Your task to perform on an android device: Go to Android settings Image 0: 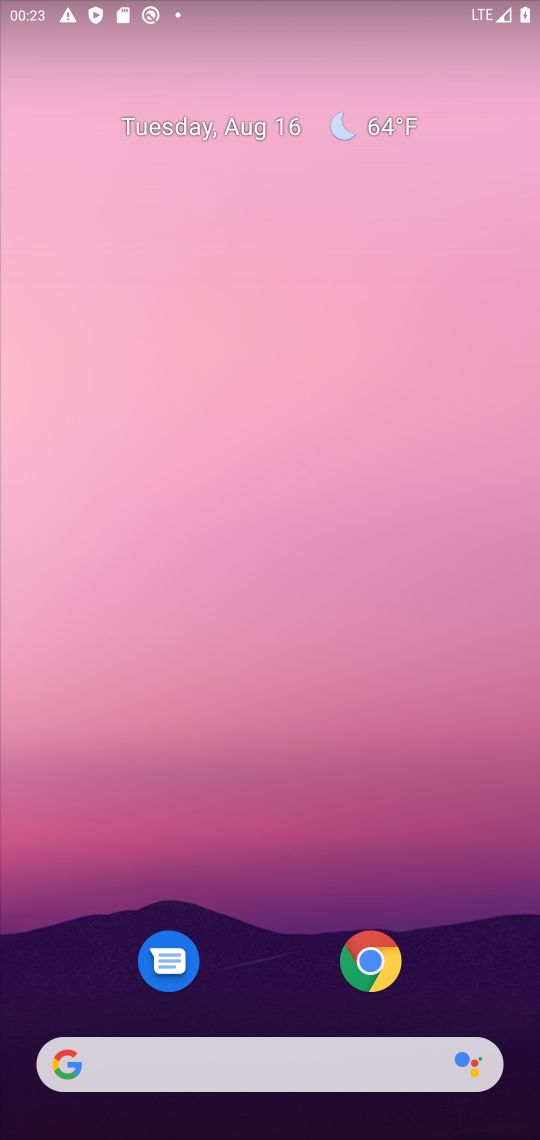
Step 0: press home button
Your task to perform on an android device: Go to Android settings Image 1: 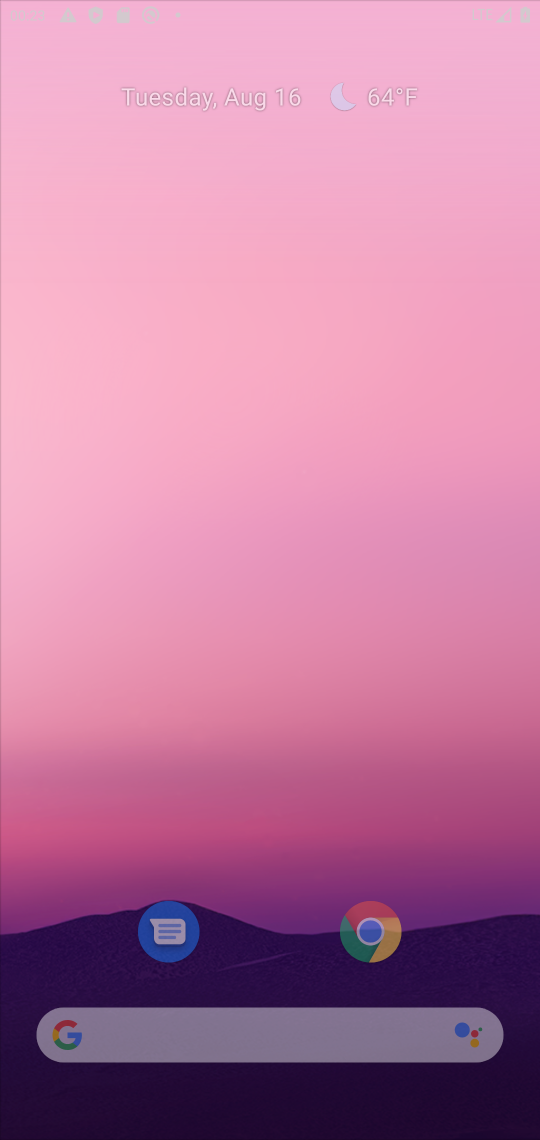
Step 1: drag from (253, 999) to (391, 237)
Your task to perform on an android device: Go to Android settings Image 2: 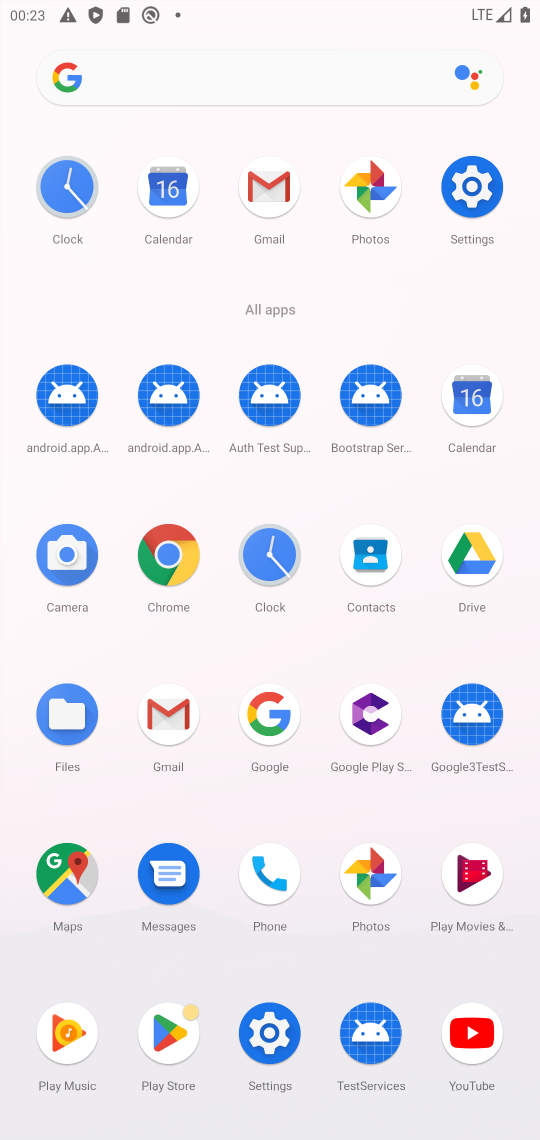
Step 2: click (481, 177)
Your task to perform on an android device: Go to Android settings Image 3: 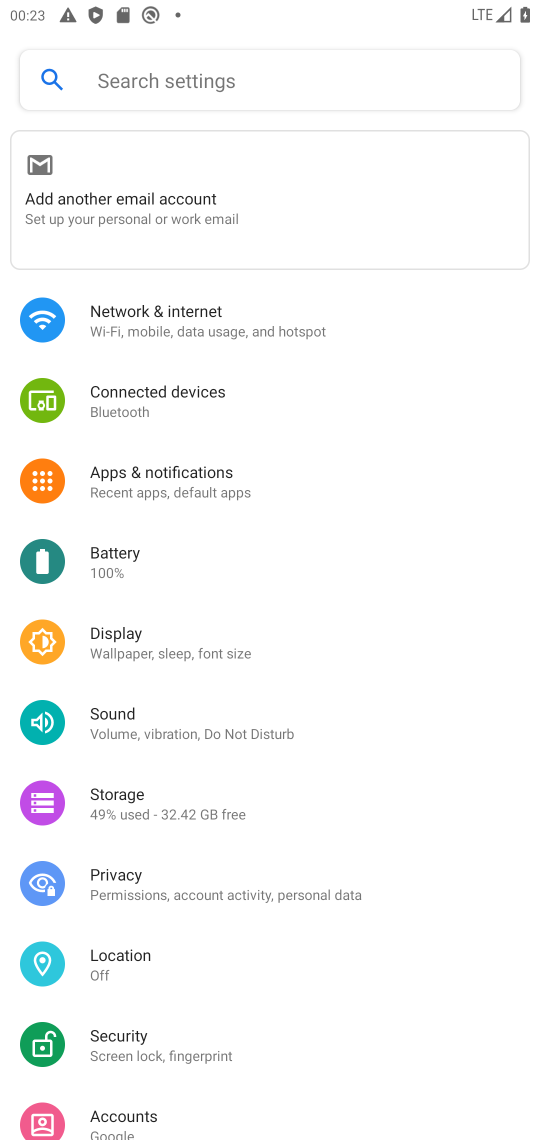
Step 3: drag from (230, 930) to (210, 252)
Your task to perform on an android device: Go to Android settings Image 4: 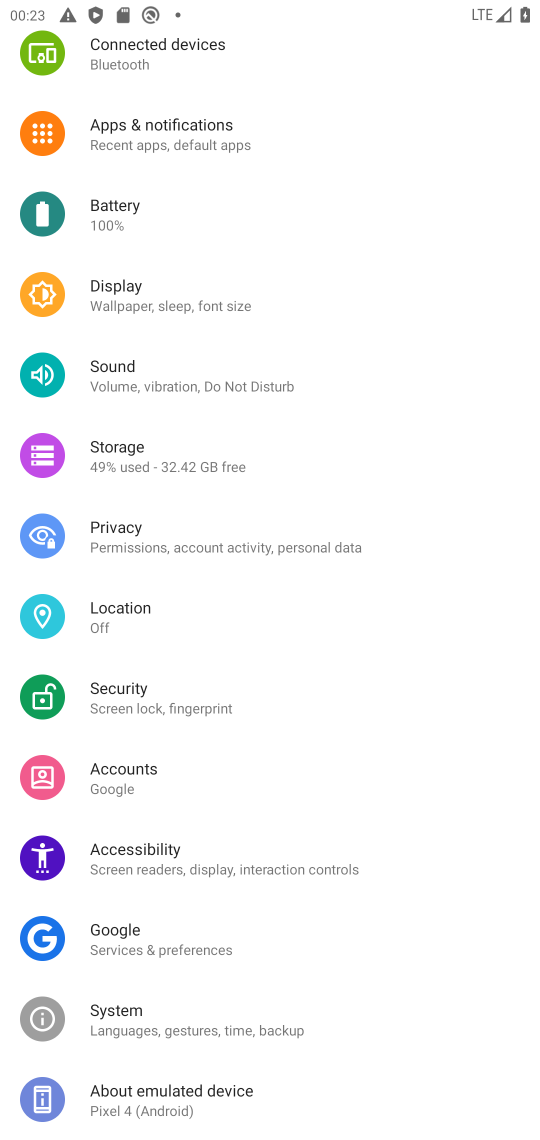
Step 4: click (212, 1101)
Your task to perform on an android device: Go to Android settings Image 5: 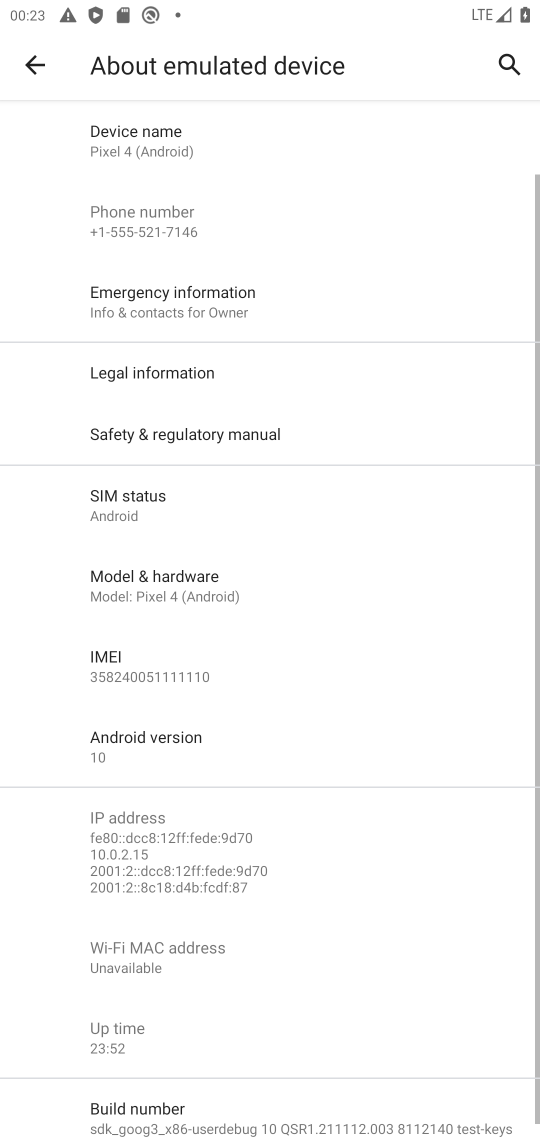
Step 5: click (129, 746)
Your task to perform on an android device: Go to Android settings Image 6: 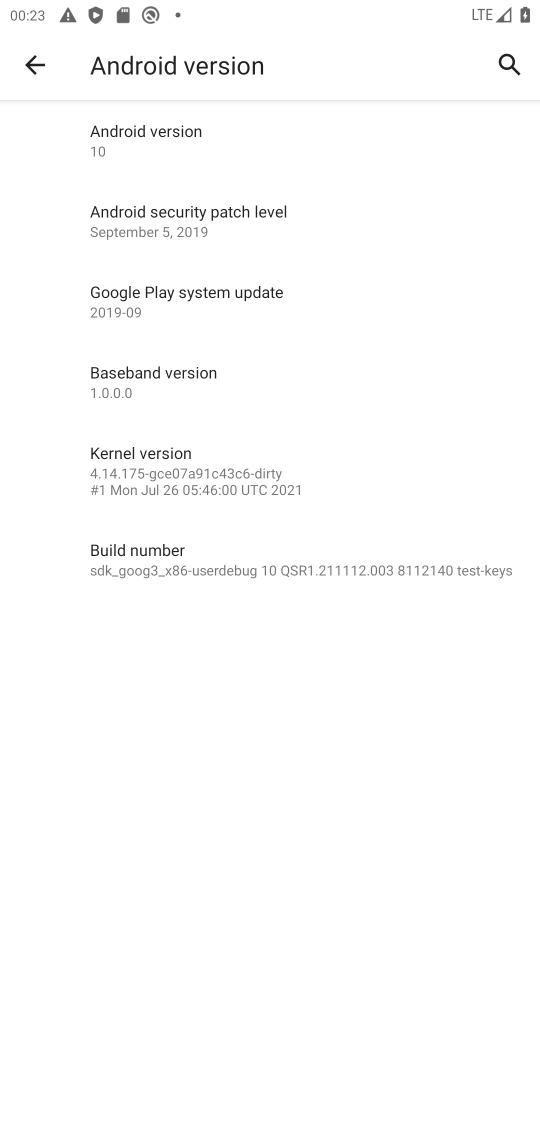
Step 6: task complete